Your task to perform on an android device: Open wifi settings Image 0: 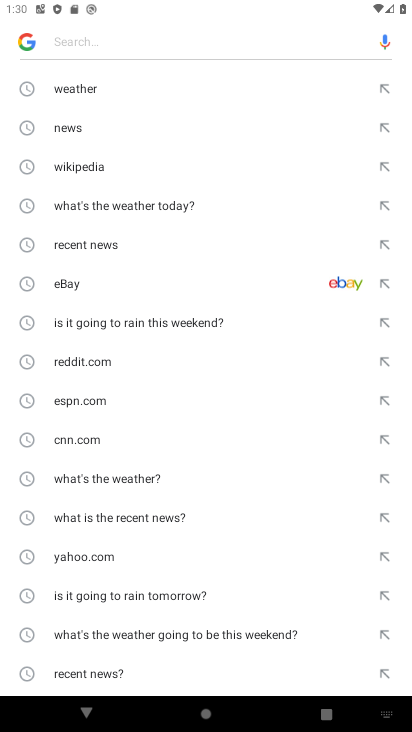
Step 0: press home button
Your task to perform on an android device: Open wifi settings Image 1: 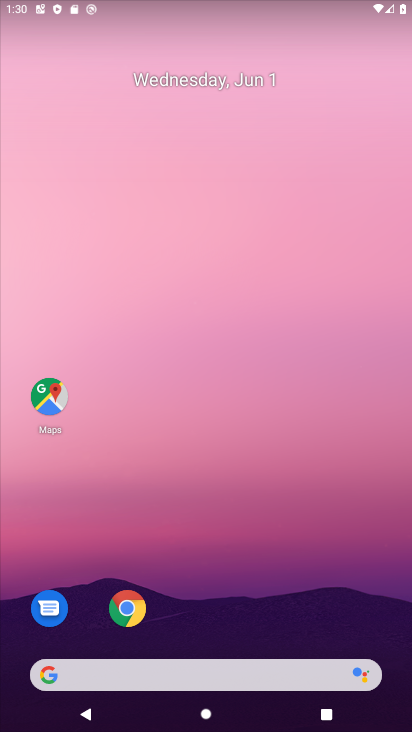
Step 1: drag from (189, 644) to (309, 147)
Your task to perform on an android device: Open wifi settings Image 2: 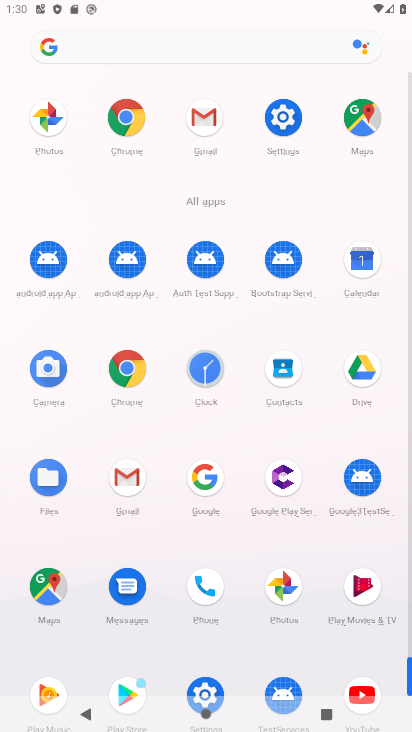
Step 2: click (286, 134)
Your task to perform on an android device: Open wifi settings Image 3: 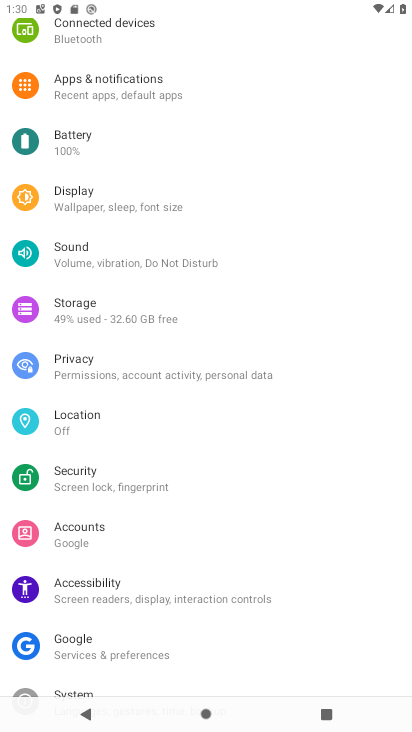
Step 3: drag from (156, 130) to (135, 418)
Your task to perform on an android device: Open wifi settings Image 4: 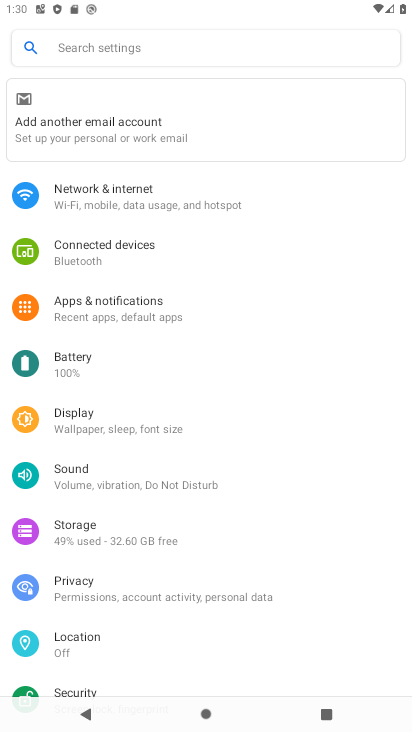
Step 4: click (96, 200)
Your task to perform on an android device: Open wifi settings Image 5: 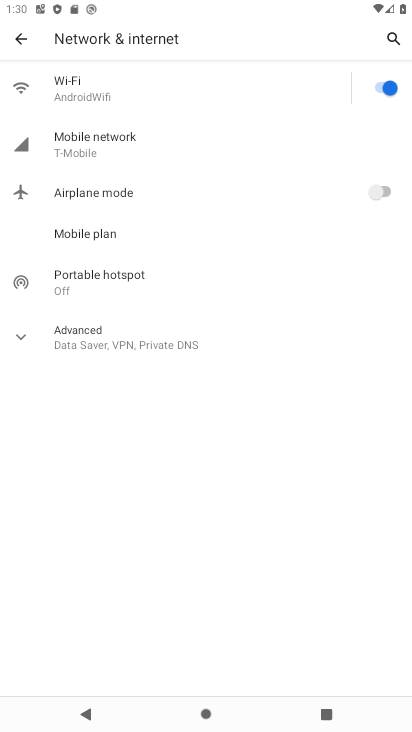
Step 5: click (117, 98)
Your task to perform on an android device: Open wifi settings Image 6: 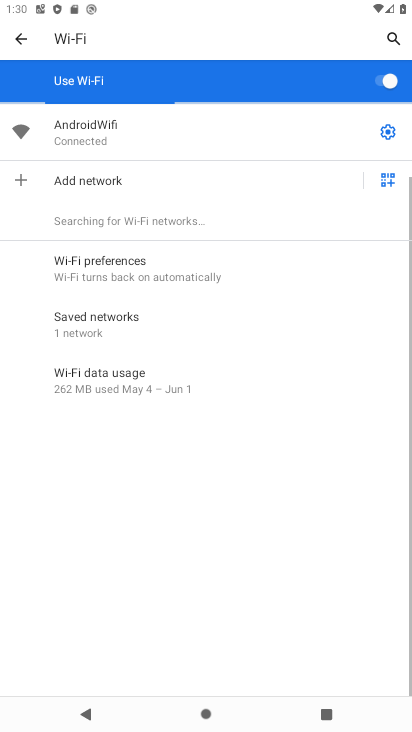
Step 6: task complete